Your task to perform on an android device: Open my contact list Image 0: 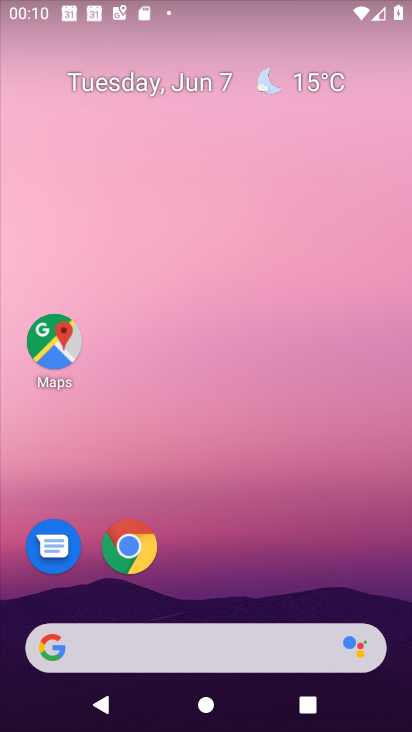
Step 0: drag from (216, 629) to (345, 1)
Your task to perform on an android device: Open my contact list Image 1: 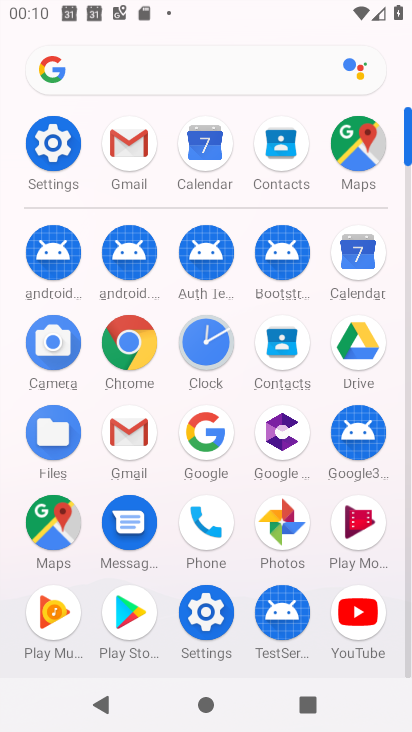
Step 1: click (282, 348)
Your task to perform on an android device: Open my contact list Image 2: 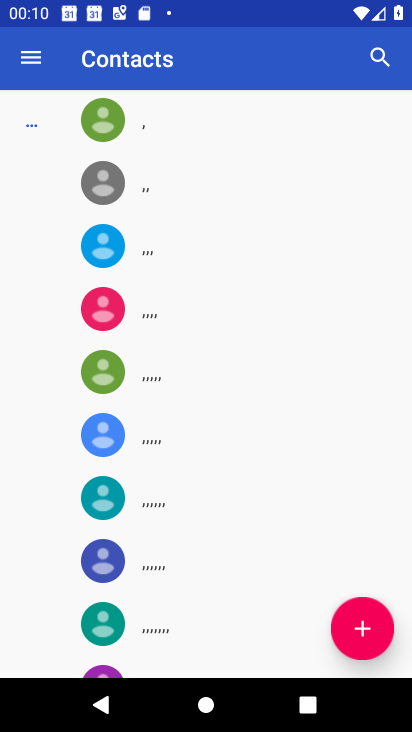
Step 2: task complete